Your task to perform on an android device: change alarm snooze length Image 0: 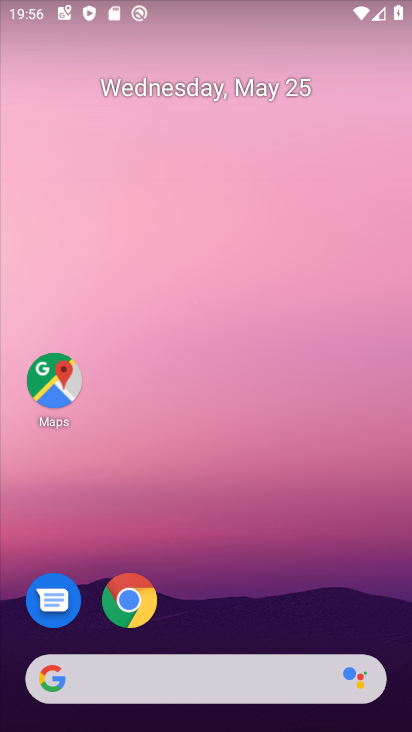
Step 0: drag from (277, 612) to (291, 253)
Your task to perform on an android device: change alarm snooze length Image 1: 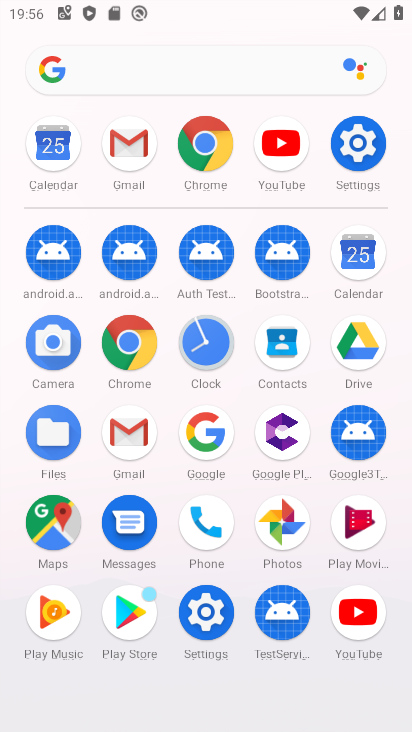
Step 1: click (216, 355)
Your task to perform on an android device: change alarm snooze length Image 2: 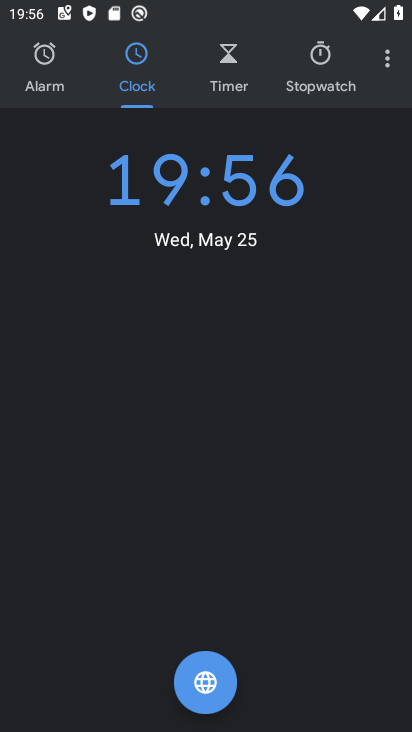
Step 2: click (394, 71)
Your task to perform on an android device: change alarm snooze length Image 3: 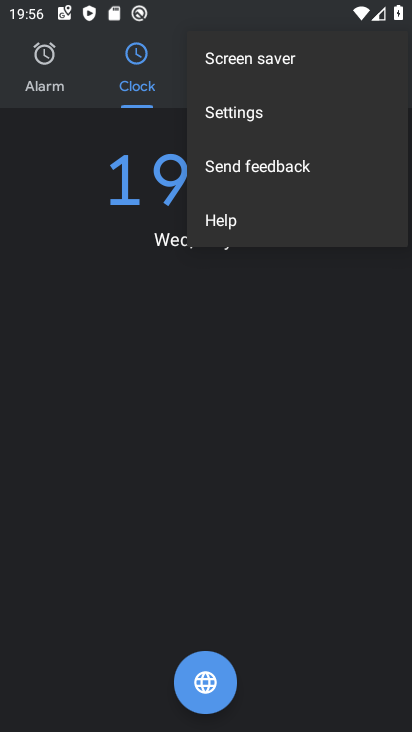
Step 3: click (280, 114)
Your task to perform on an android device: change alarm snooze length Image 4: 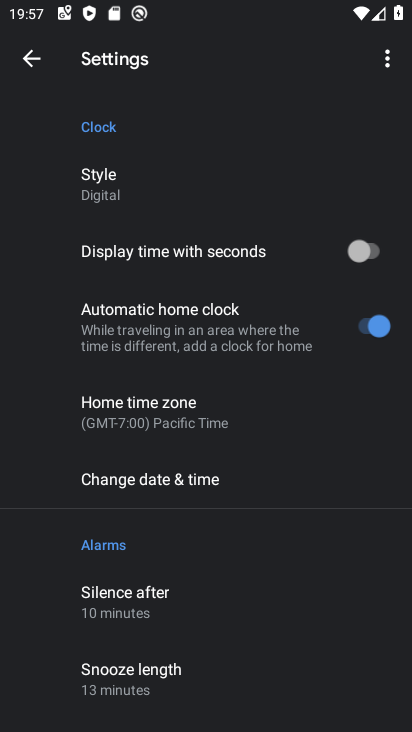
Step 4: drag from (252, 581) to (215, 237)
Your task to perform on an android device: change alarm snooze length Image 5: 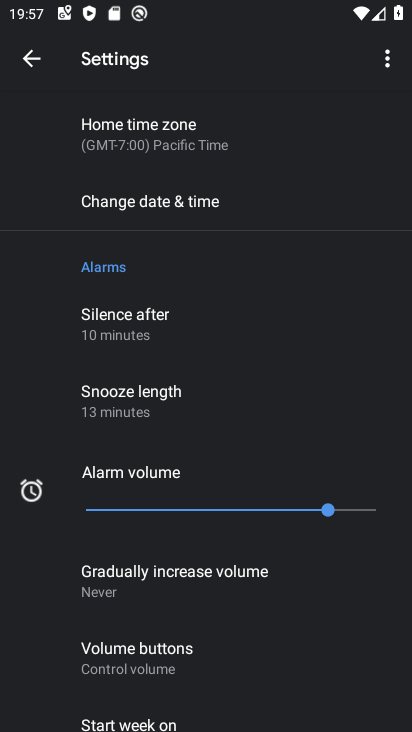
Step 5: click (174, 391)
Your task to perform on an android device: change alarm snooze length Image 6: 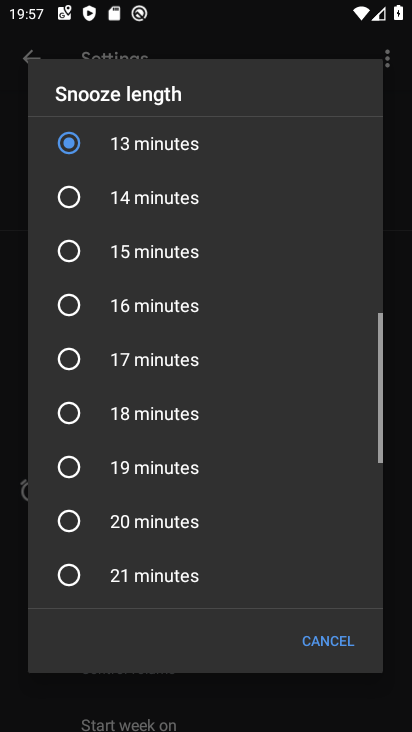
Step 6: click (165, 415)
Your task to perform on an android device: change alarm snooze length Image 7: 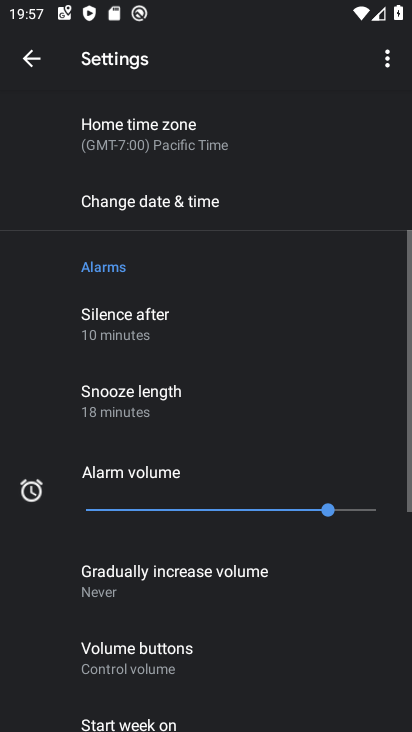
Step 7: task complete